Your task to perform on an android device: show emergency info Image 0: 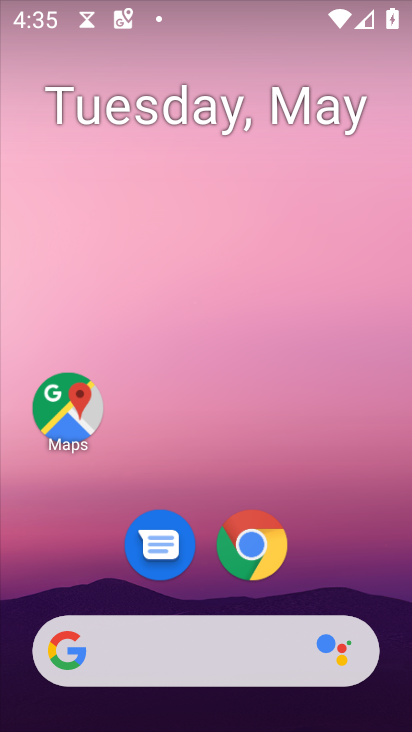
Step 0: drag from (315, 503) to (289, 122)
Your task to perform on an android device: show emergency info Image 1: 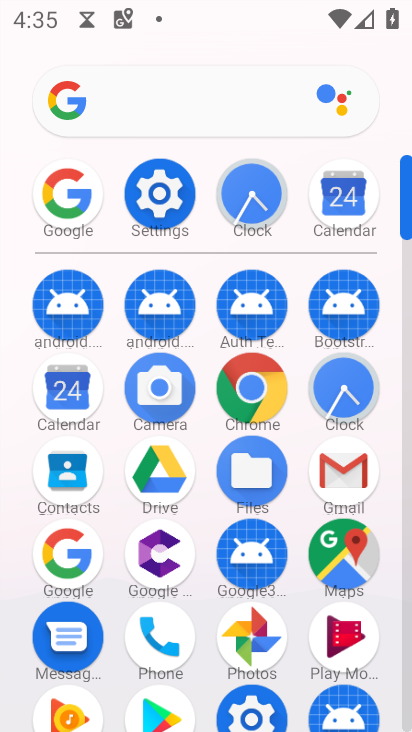
Step 1: click (162, 189)
Your task to perform on an android device: show emergency info Image 2: 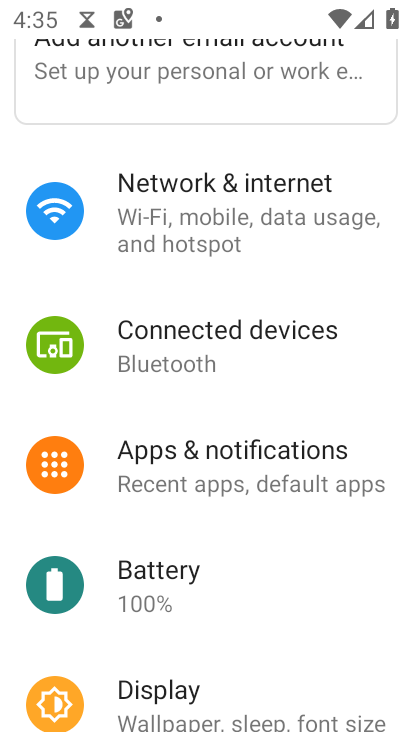
Step 2: drag from (237, 547) to (285, 146)
Your task to perform on an android device: show emergency info Image 3: 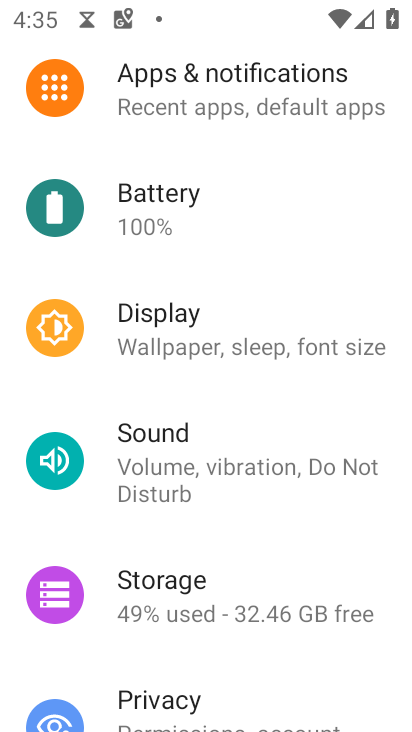
Step 3: drag from (226, 548) to (318, 222)
Your task to perform on an android device: show emergency info Image 4: 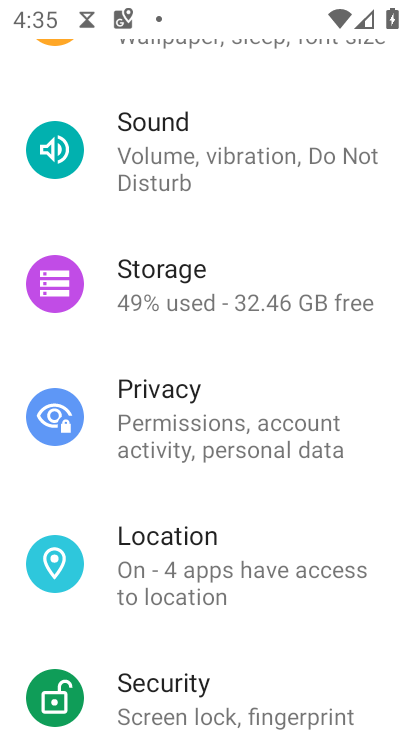
Step 4: drag from (251, 531) to (330, 251)
Your task to perform on an android device: show emergency info Image 5: 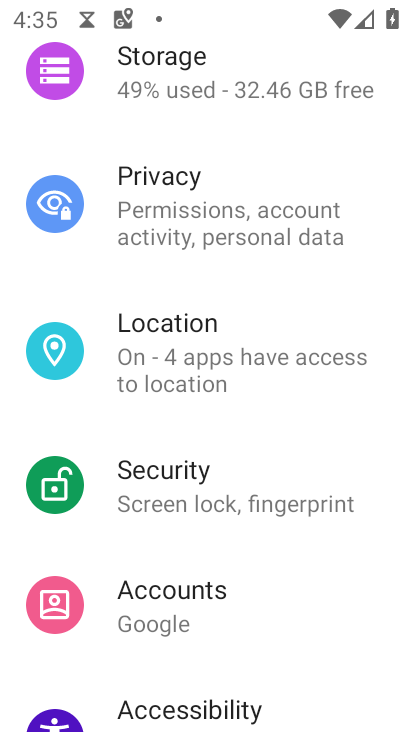
Step 5: drag from (266, 631) to (277, 277)
Your task to perform on an android device: show emergency info Image 6: 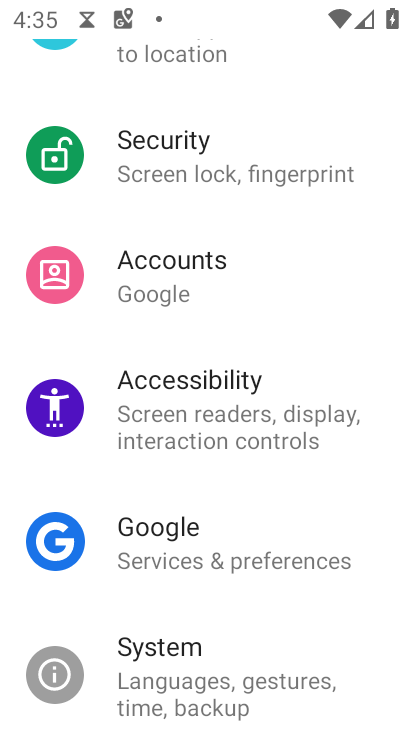
Step 6: drag from (217, 616) to (308, 358)
Your task to perform on an android device: show emergency info Image 7: 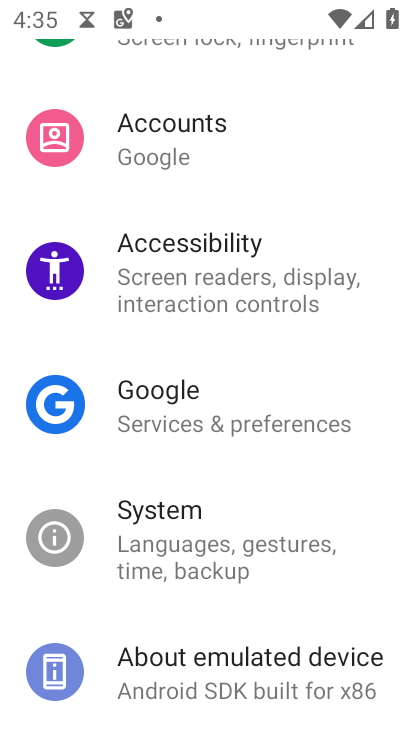
Step 7: click (232, 669)
Your task to perform on an android device: show emergency info Image 8: 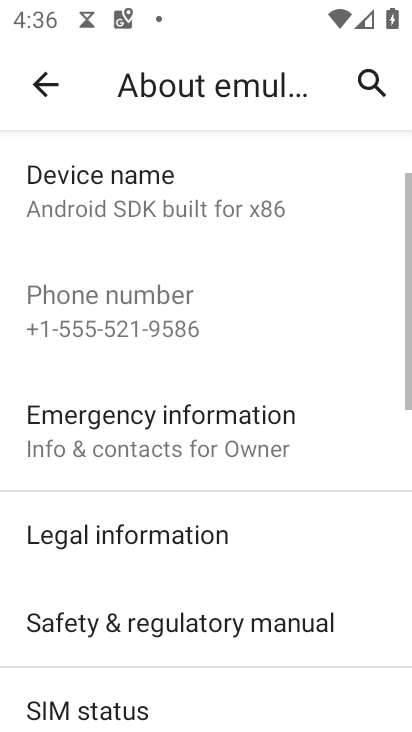
Step 8: click (221, 426)
Your task to perform on an android device: show emergency info Image 9: 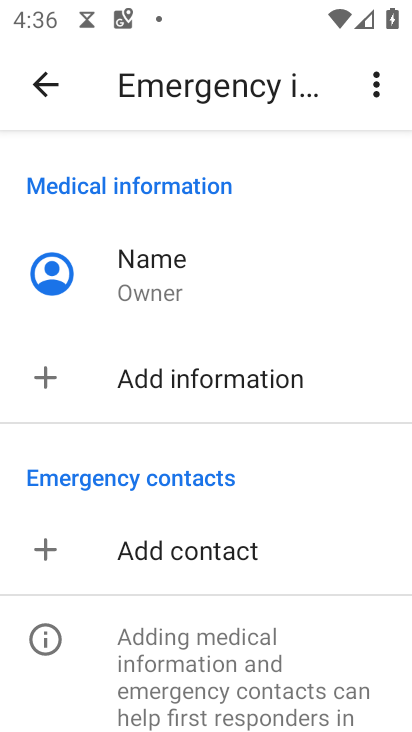
Step 9: task complete